Your task to perform on an android device: Empty the shopping cart on walmart.com. Search for "macbook pro" on walmart.com, select the first entry, add it to the cart, then select checkout. Image 0: 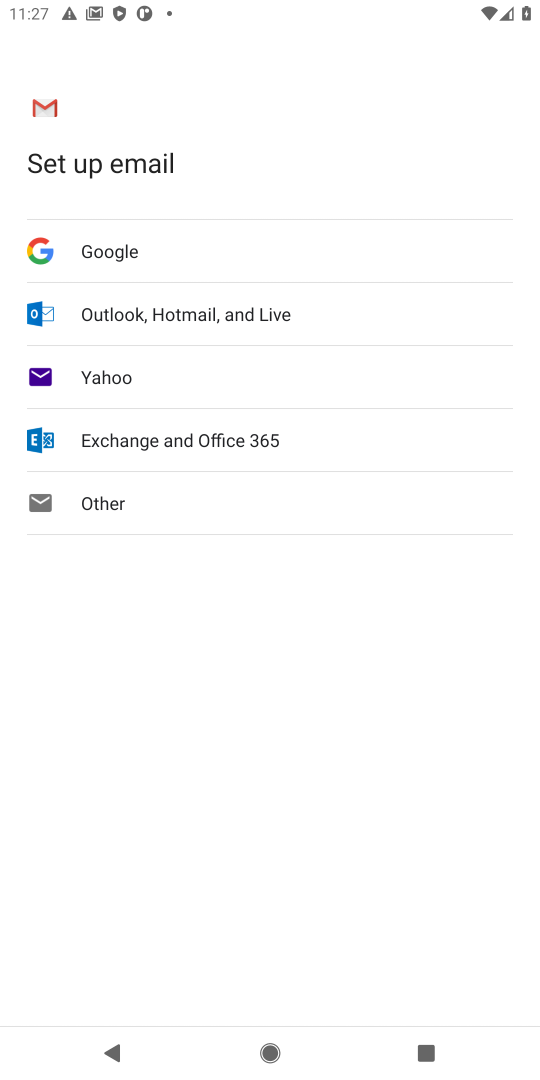
Step 0: task complete